Your task to perform on an android device: Show me the alarms in the clock app Image 0: 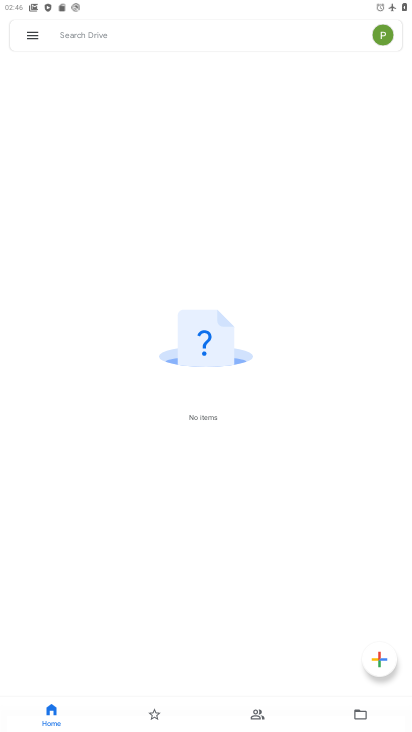
Step 0: press home button
Your task to perform on an android device: Show me the alarms in the clock app Image 1: 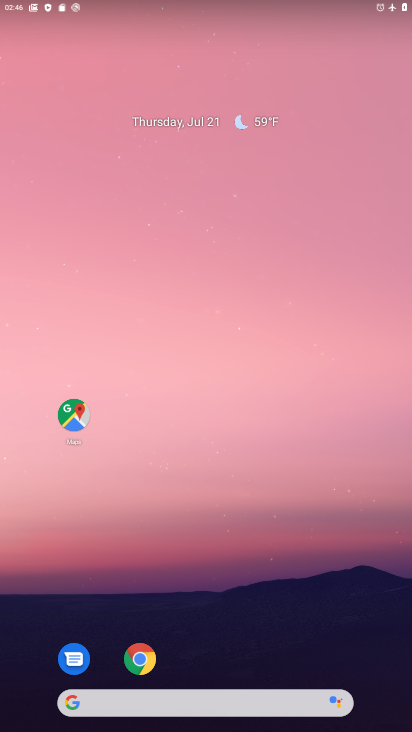
Step 1: drag from (315, 596) to (273, 69)
Your task to perform on an android device: Show me the alarms in the clock app Image 2: 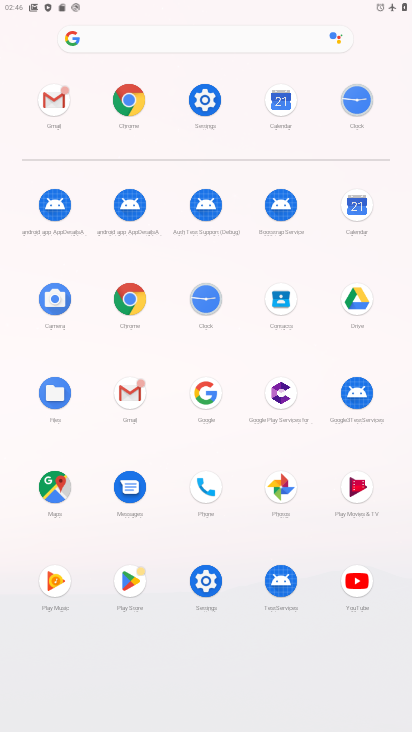
Step 2: click (213, 294)
Your task to perform on an android device: Show me the alarms in the clock app Image 3: 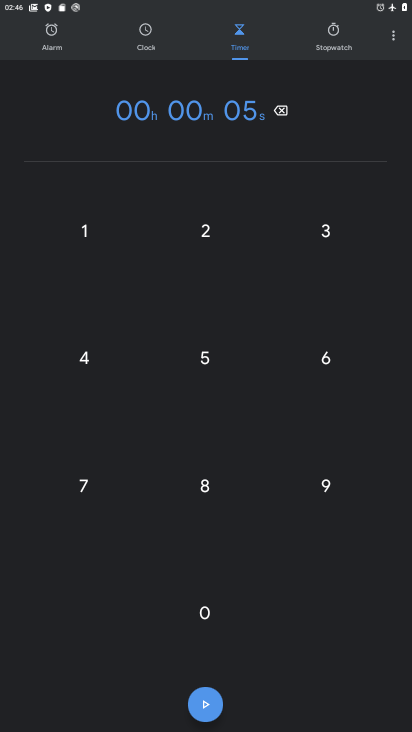
Step 3: click (45, 35)
Your task to perform on an android device: Show me the alarms in the clock app Image 4: 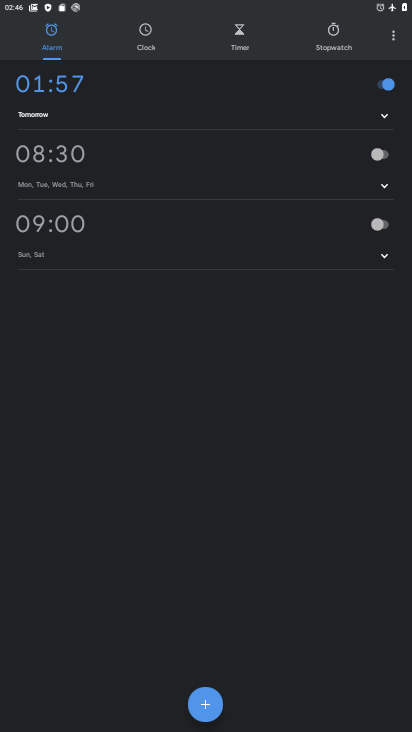
Step 4: task complete